Your task to perform on an android device: Open Amazon Image 0: 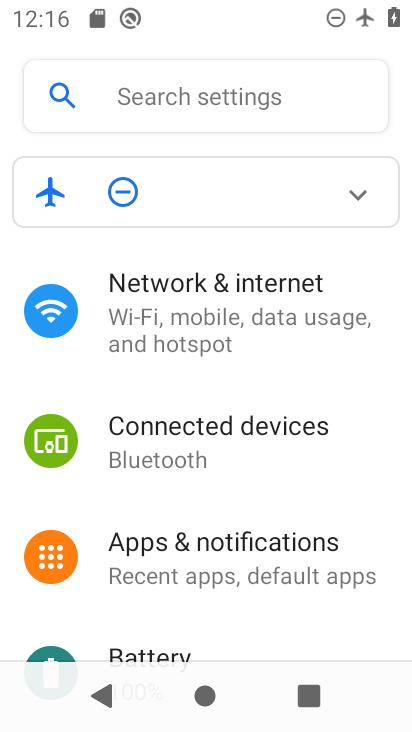
Step 0: press home button
Your task to perform on an android device: Open Amazon Image 1: 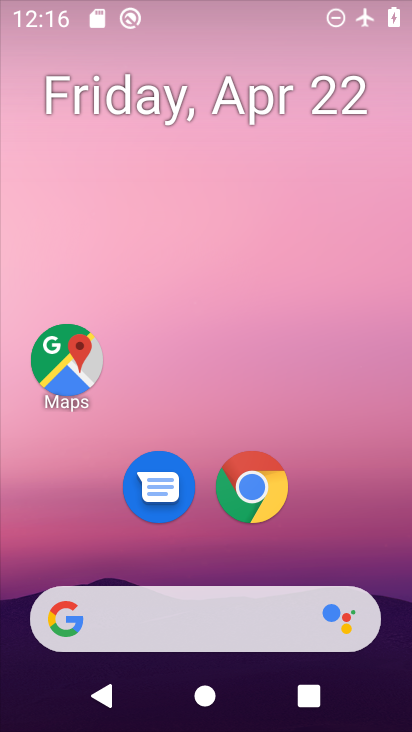
Step 1: drag from (255, 605) to (286, 196)
Your task to perform on an android device: Open Amazon Image 2: 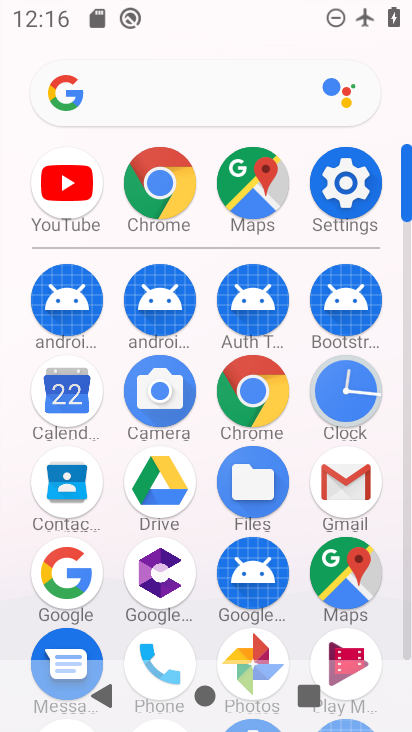
Step 2: click (250, 388)
Your task to perform on an android device: Open Amazon Image 3: 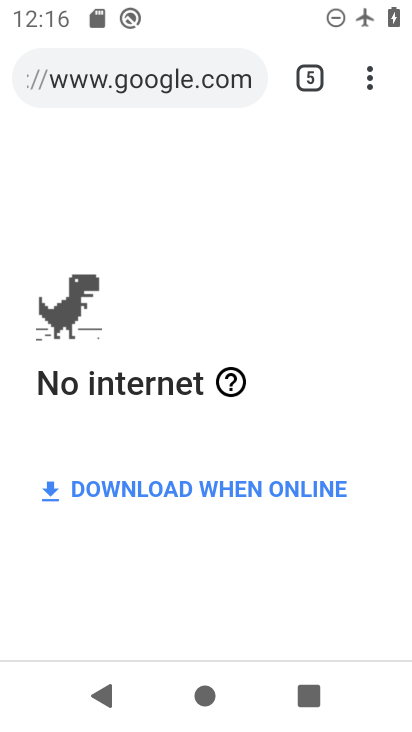
Step 3: click (356, 82)
Your task to perform on an android device: Open Amazon Image 4: 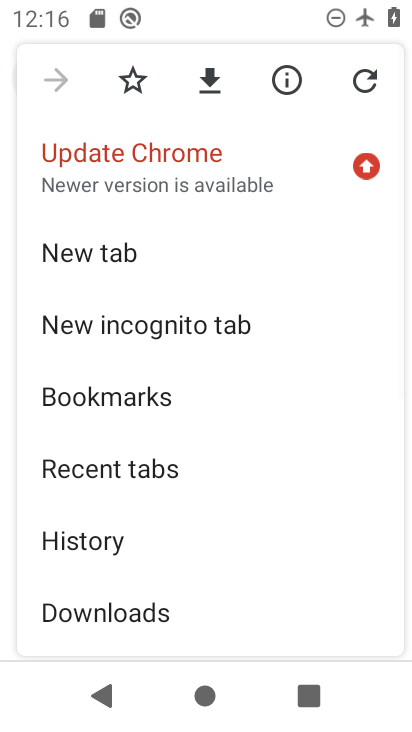
Step 4: click (157, 238)
Your task to perform on an android device: Open Amazon Image 5: 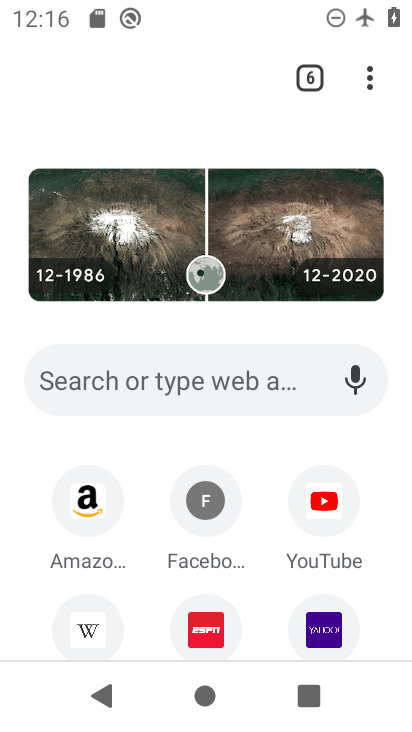
Step 5: click (75, 480)
Your task to perform on an android device: Open Amazon Image 6: 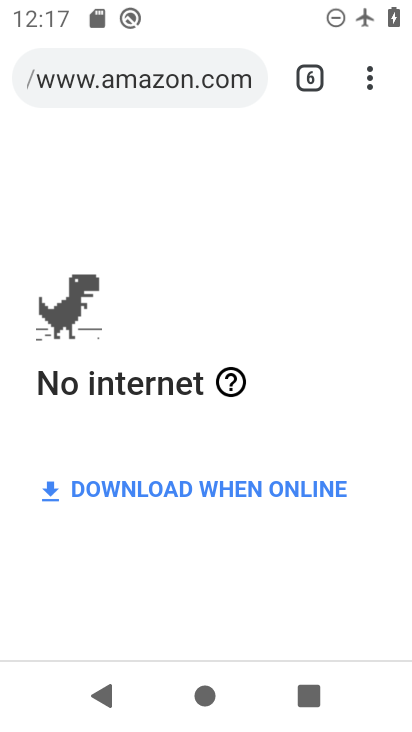
Step 6: task complete